Your task to perform on an android device: Is it going to rain today? Image 0: 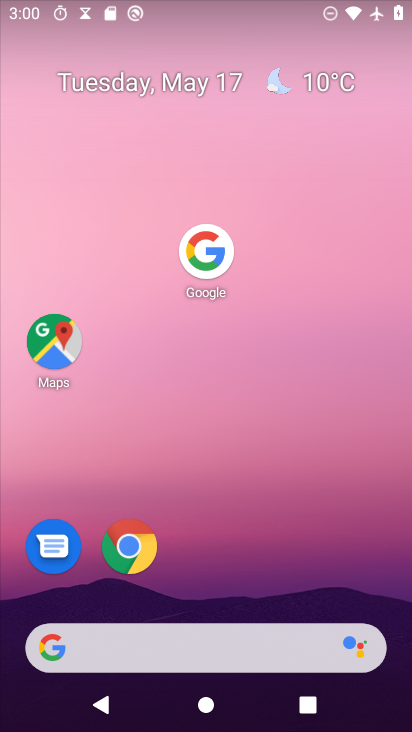
Step 0: click (326, 88)
Your task to perform on an android device: Is it going to rain today? Image 1: 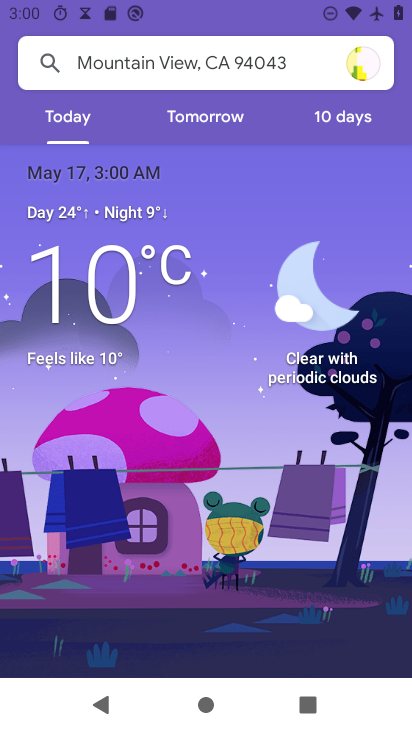
Step 1: task complete